Your task to perform on an android device: toggle notification dots Image 0: 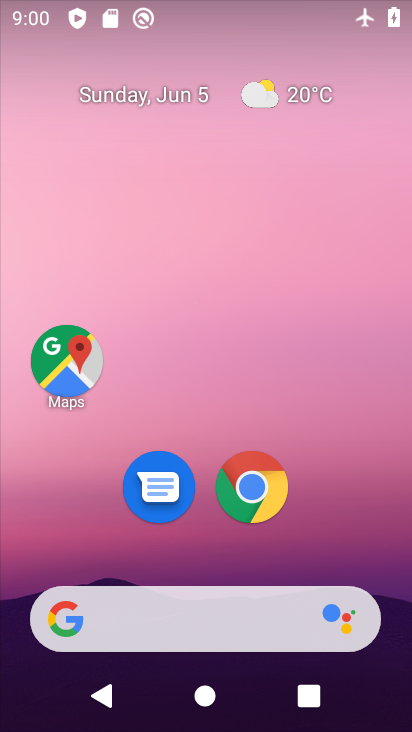
Step 0: drag from (162, 471) to (157, 222)
Your task to perform on an android device: toggle notification dots Image 1: 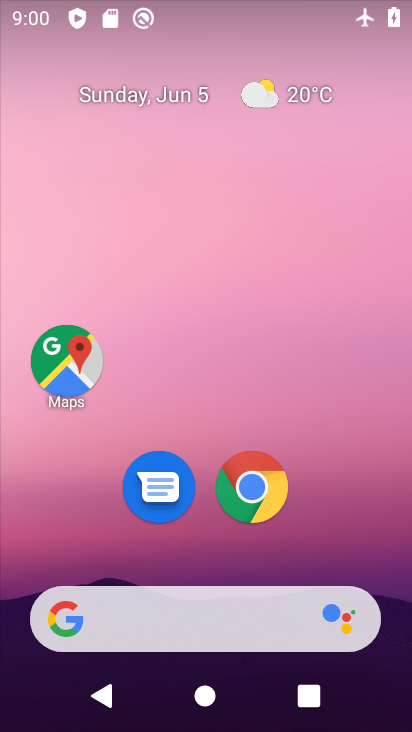
Step 1: drag from (218, 594) to (205, 283)
Your task to perform on an android device: toggle notification dots Image 2: 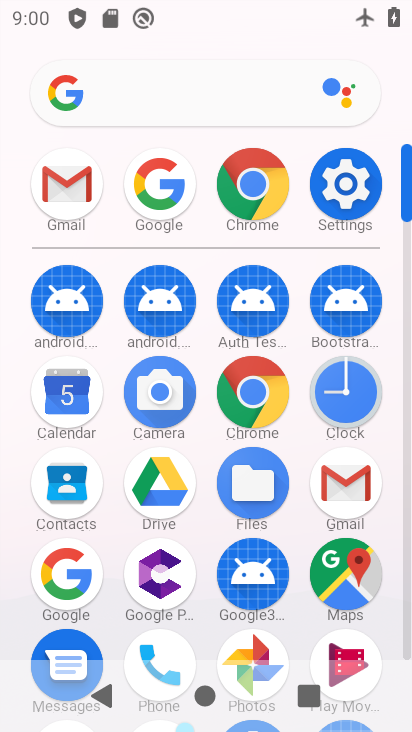
Step 2: click (341, 190)
Your task to perform on an android device: toggle notification dots Image 3: 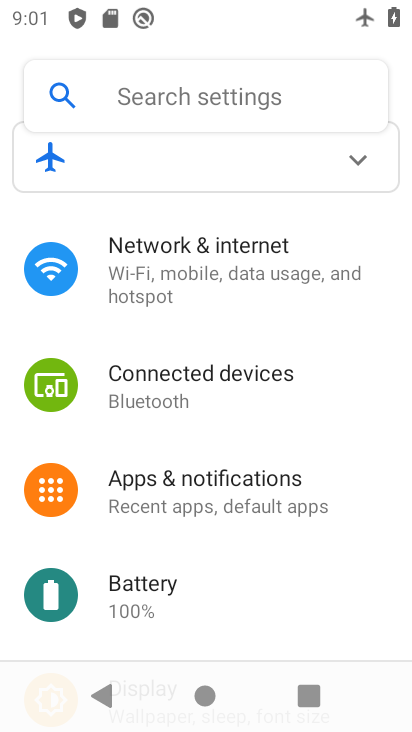
Step 3: click (229, 480)
Your task to perform on an android device: toggle notification dots Image 4: 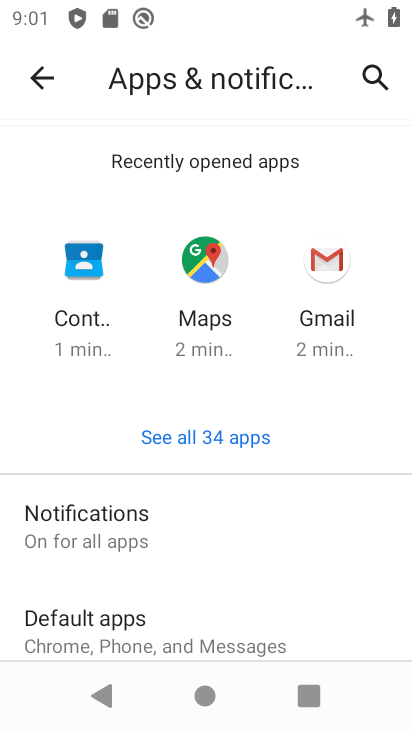
Step 4: click (200, 529)
Your task to perform on an android device: toggle notification dots Image 5: 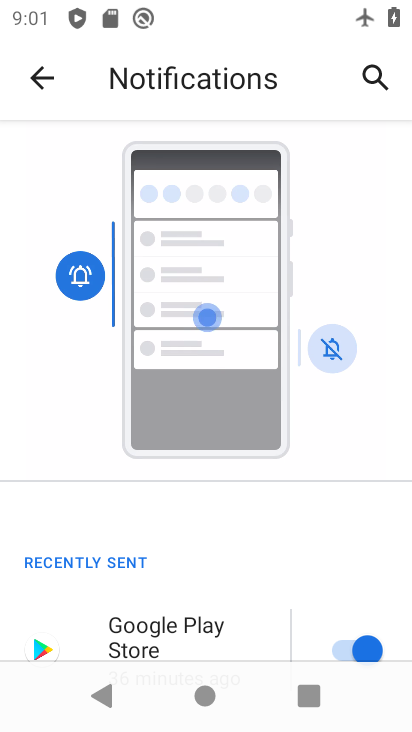
Step 5: drag from (209, 570) to (223, 420)
Your task to perform on an android device: toggle notification dots Image 6: 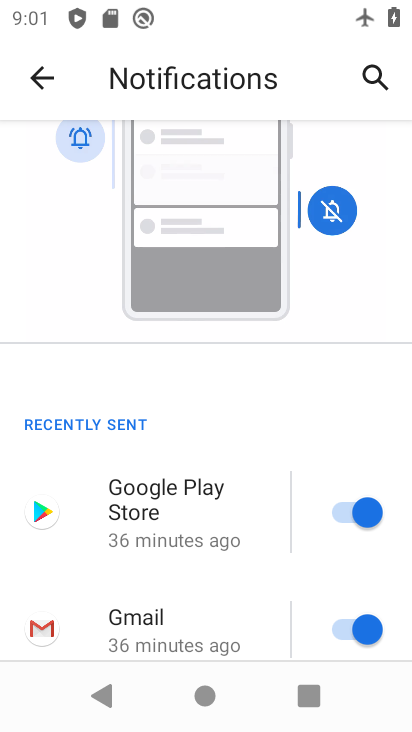
Step 6: drag from (214, 443) to (283, 176)
Your task to perform on an android device: toggle notification dots Image 7: 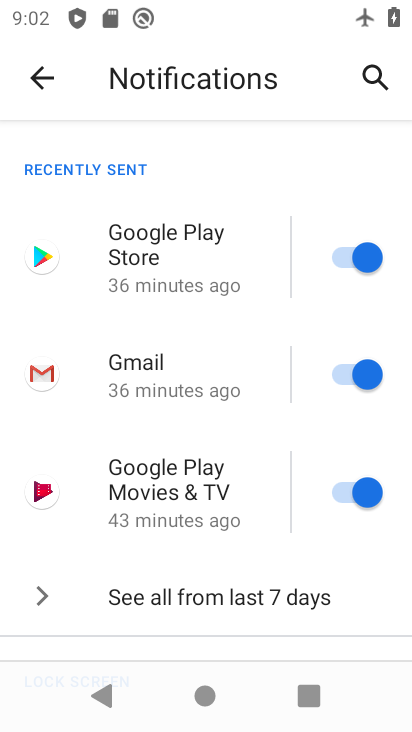
Step 7: drag from (196, 455) to (215, 253)
Your task to perform on an android device: toggle notification dots Image 8: 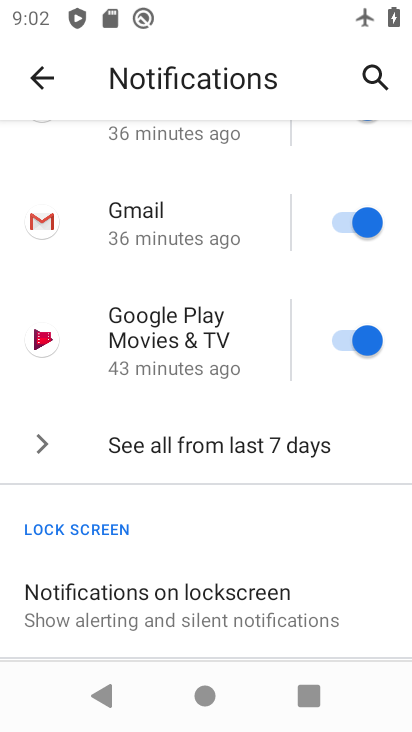
Step 8: drag from (214, 580) to (223, 405)
Your task to perform on an android device: toggle notification dots Image 9: 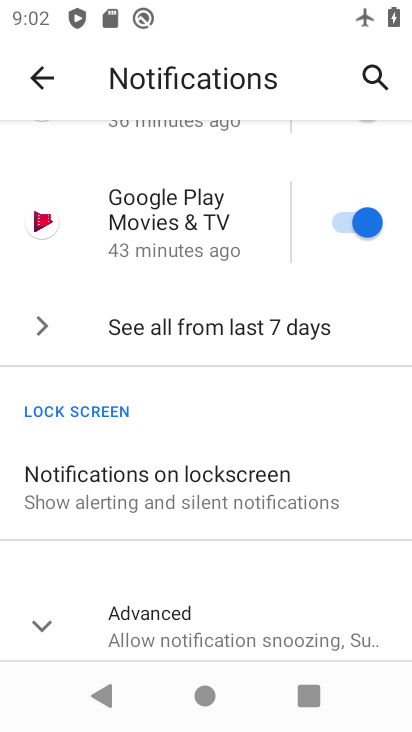
Step 9: click (187, 625)
Your task to perform on an android device: toggle notification dots Image 10: 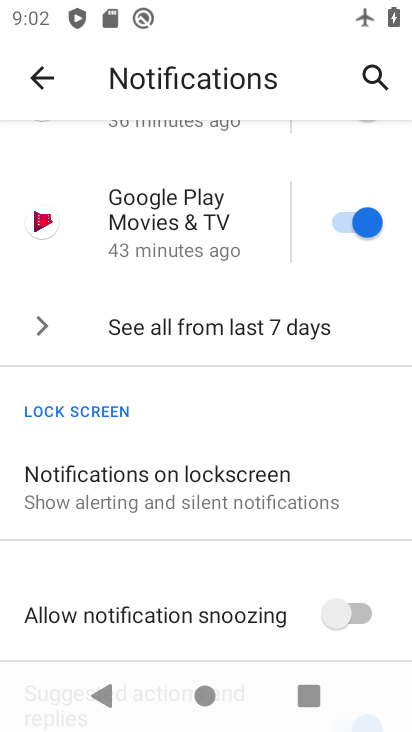
Step 10: drag from (201, 543) to (215, 388)
Your task to perform on an android device: toggle notification dots Image 11: 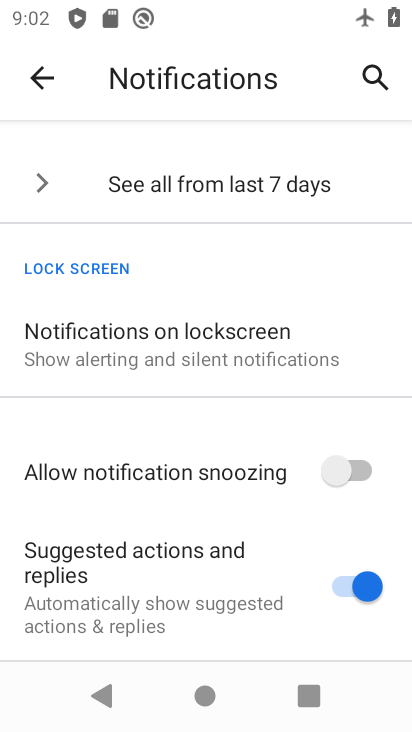
Step 11: drag from (226, 598) to (229, 406)
Your task to perform on an android device: toggle notification dots Image 12: 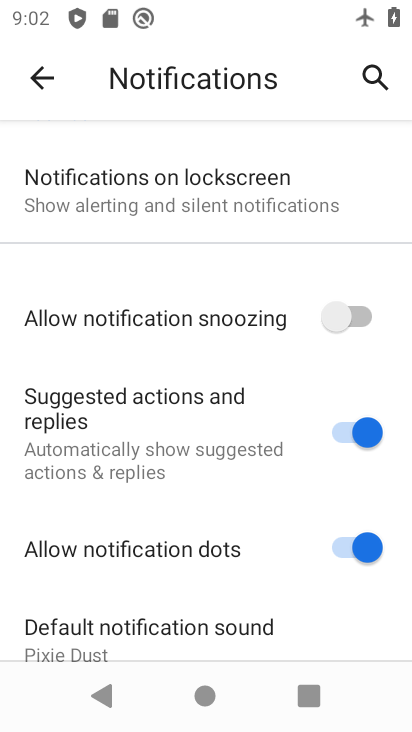
Step 12: click (233, 561)
Your task to perform on an android device: toggle notification dots Image 13: 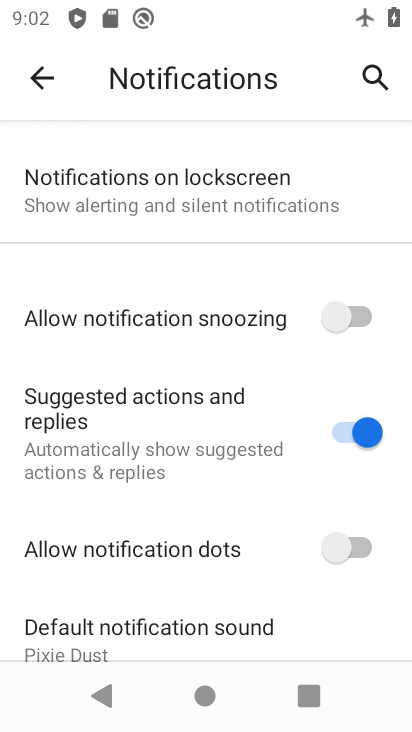
Step 13: task complete